Your task to perform on an android device: Check the news Image 0: 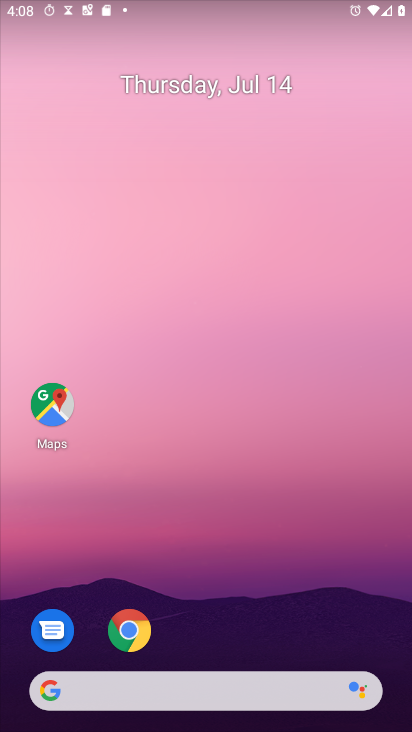
Step 0: drag from (3, 228) to (388, 236)
Your task to perform on an android device: Check the news Image 1: 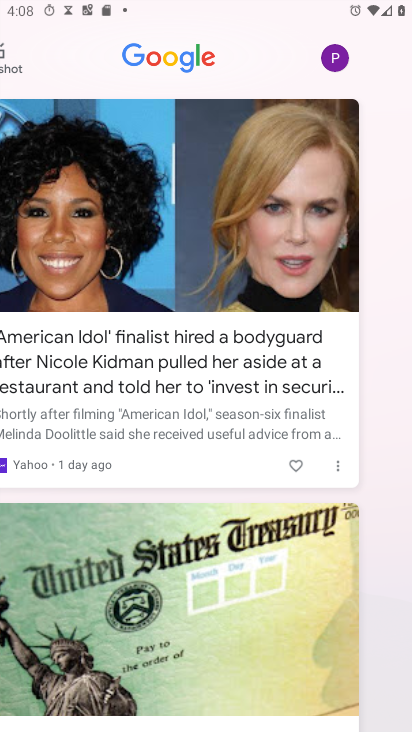
Step 1: task complete